Your task to perform on an android device: Add logitech g pro to the cart on walmart, then select checkout. Image 0: 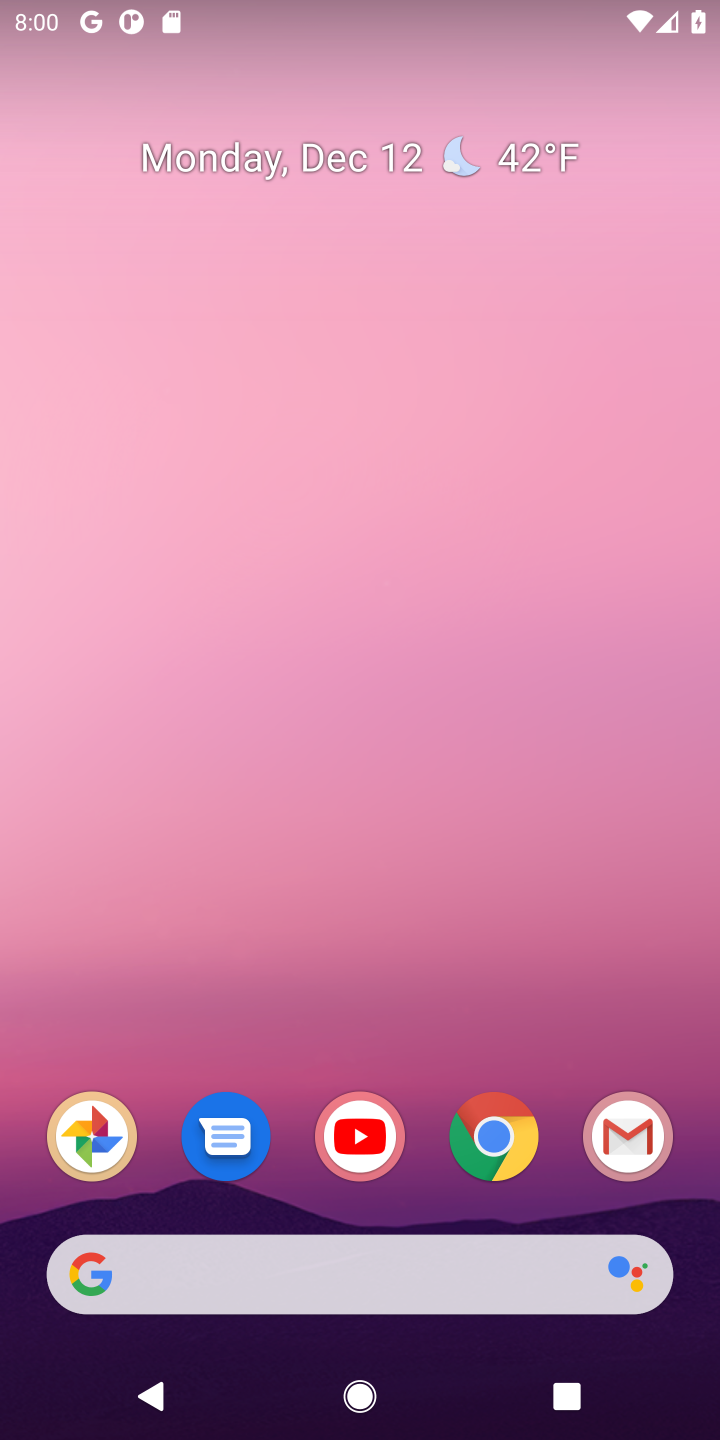
Step 0: click (498, 1151)
Your task to perform on an android device: Add logitech g pro to the cart on walmart, then select checkout. Image 1: 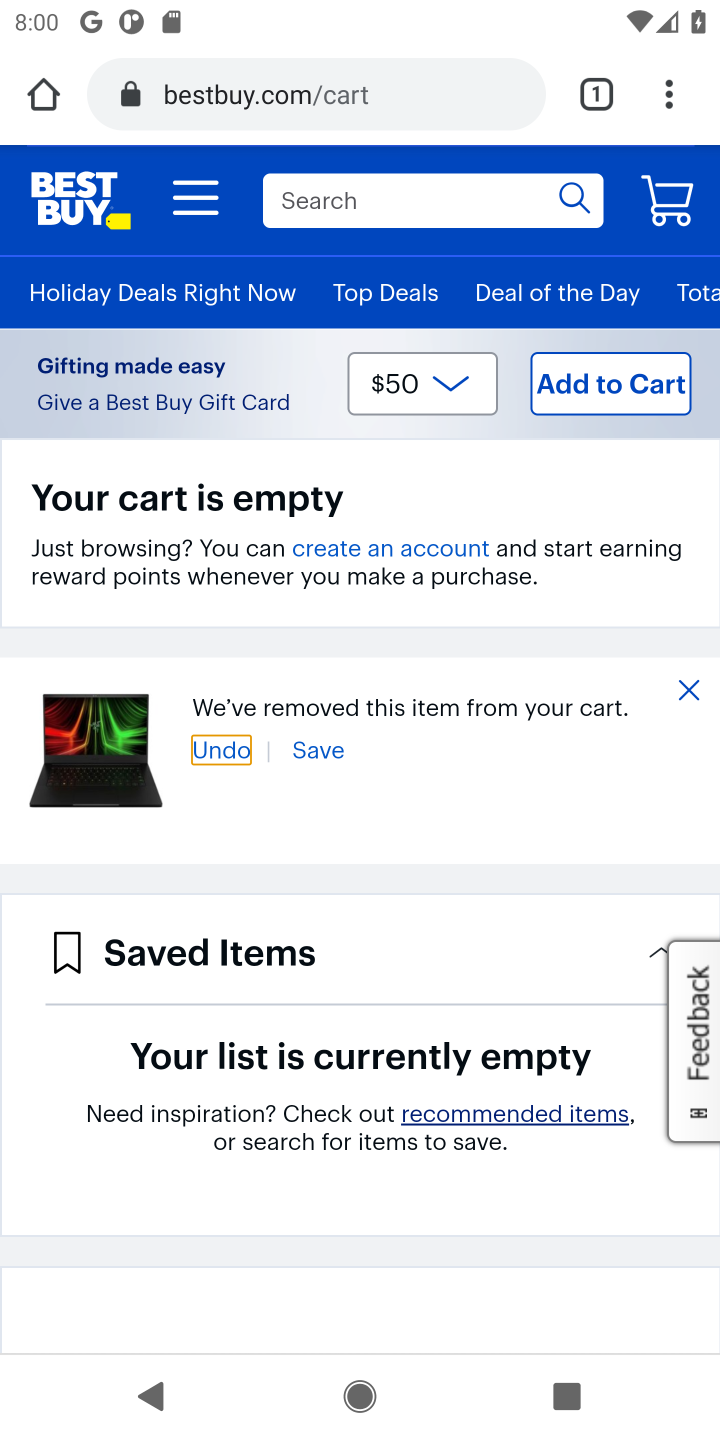
Step 1: click (270, 95)
Your task to perform on an android device: Add logitech g pro to the cart on walmart, then select checkout. Image 2: 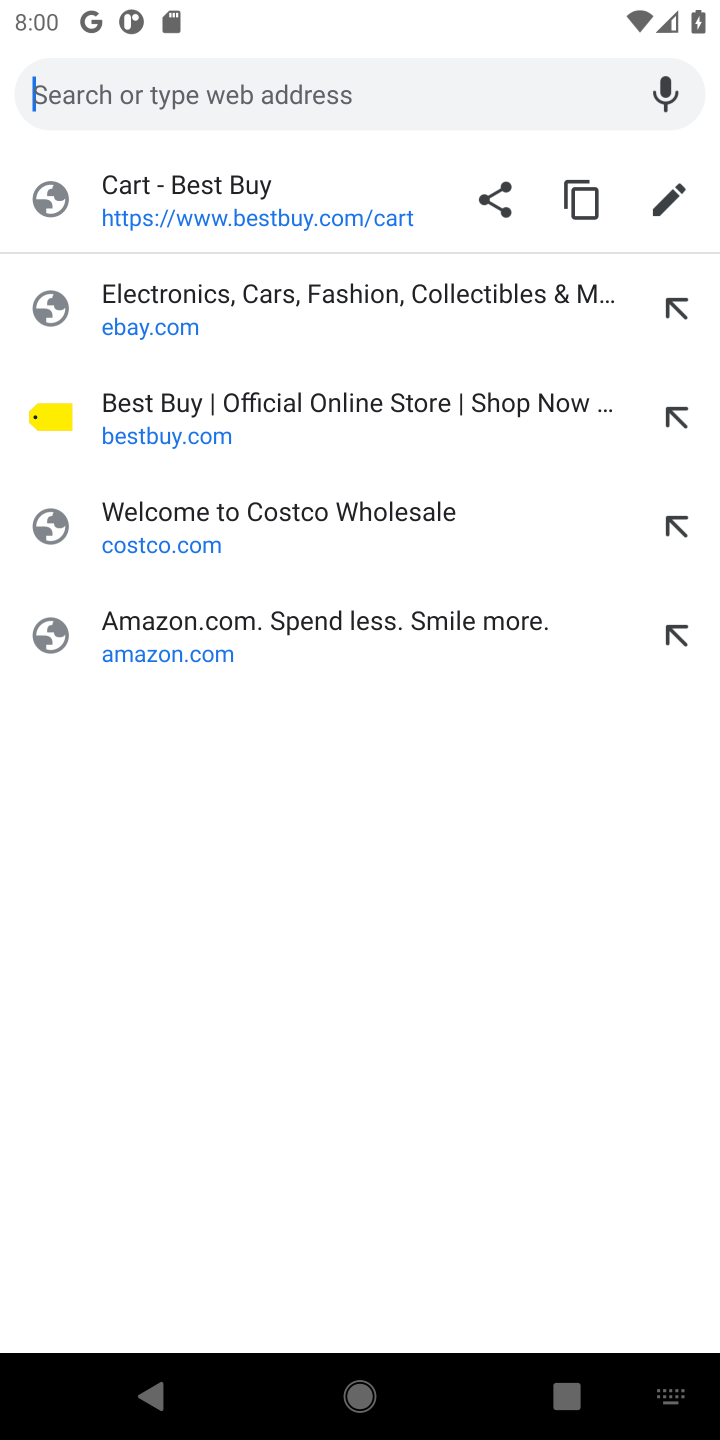
Step 2: type "walmart.com"
Your task to perform on an android device: Add logitech g pro to the cart on walmart, then select checkout. Image 3: 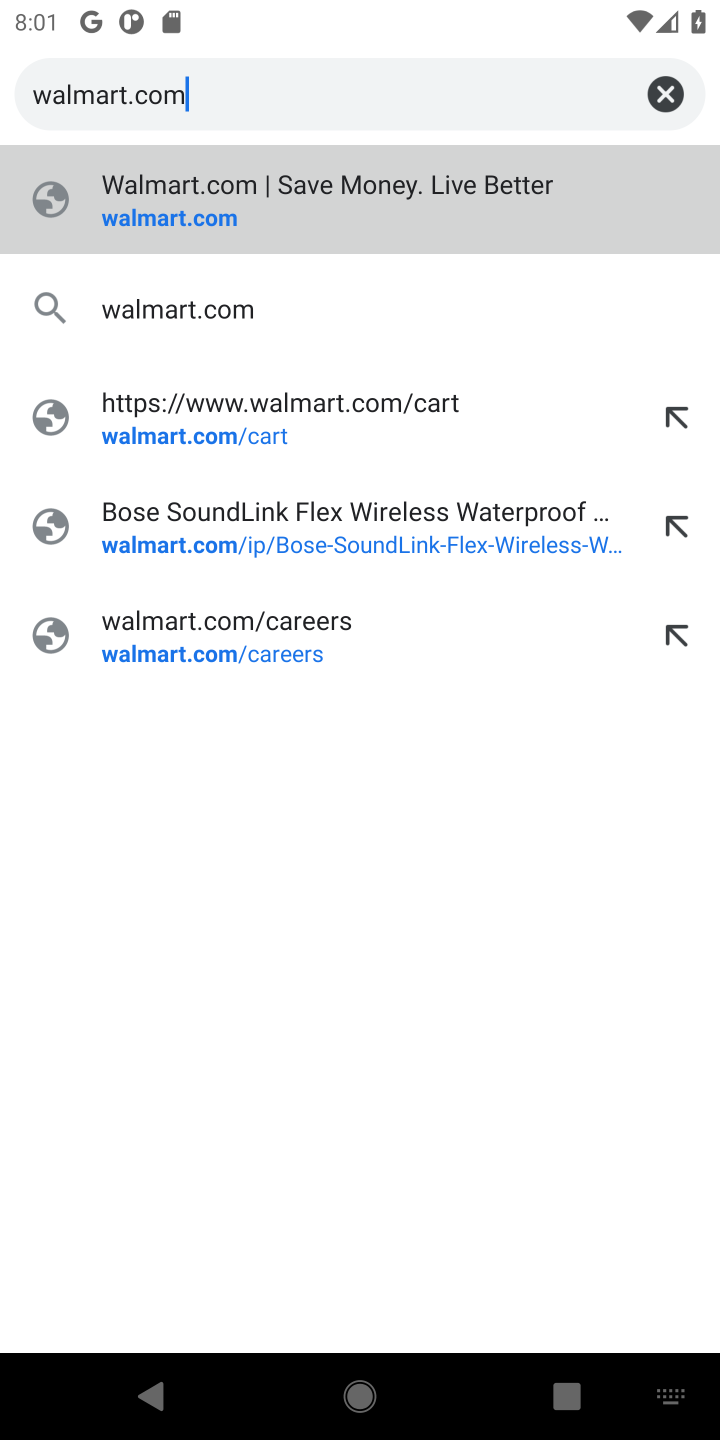
Step 3: click (188, 236)
Your task to perform on an android device: Add logitech g pro to the cart on walmart, then select checkout. Image 4: 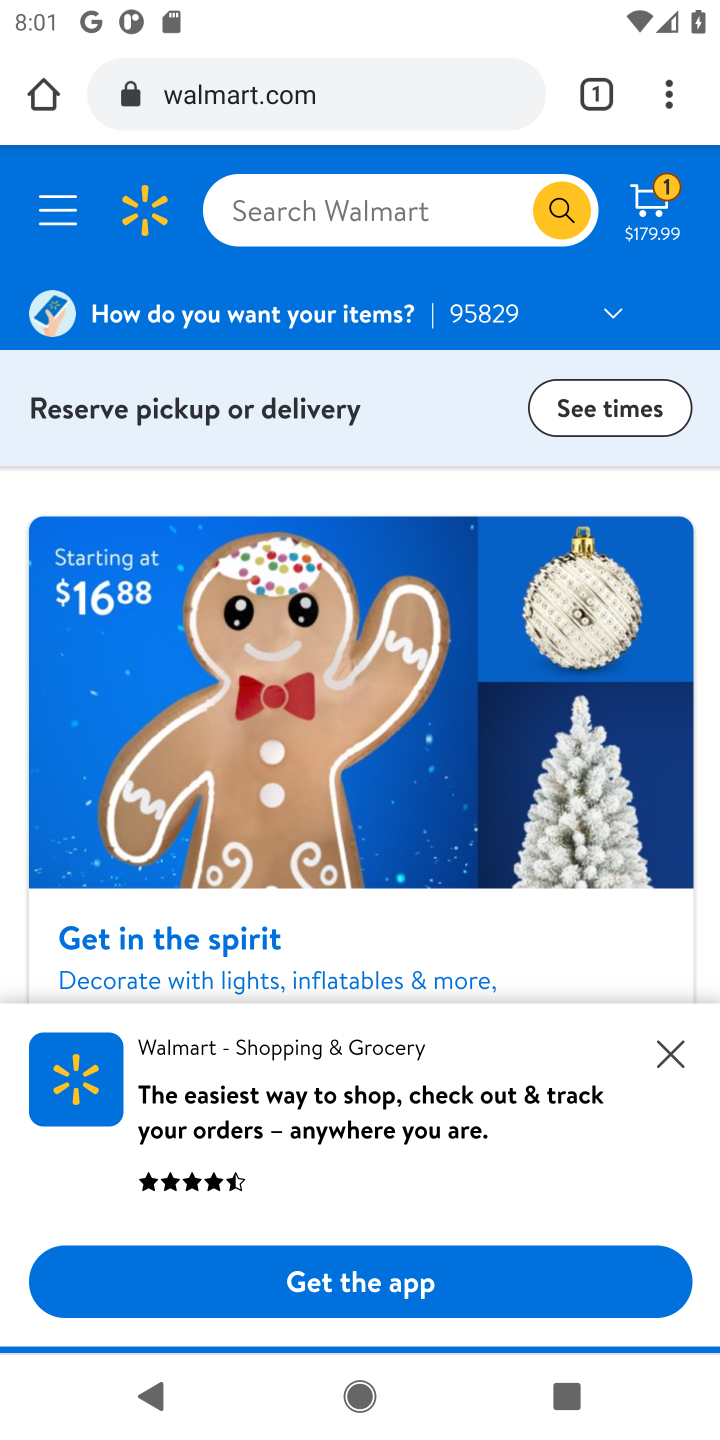
Step 4: click (318, 215)
Your task to perform on an android device: Add logitech g pro to the cart on walmart, then select checkout. Image 5: 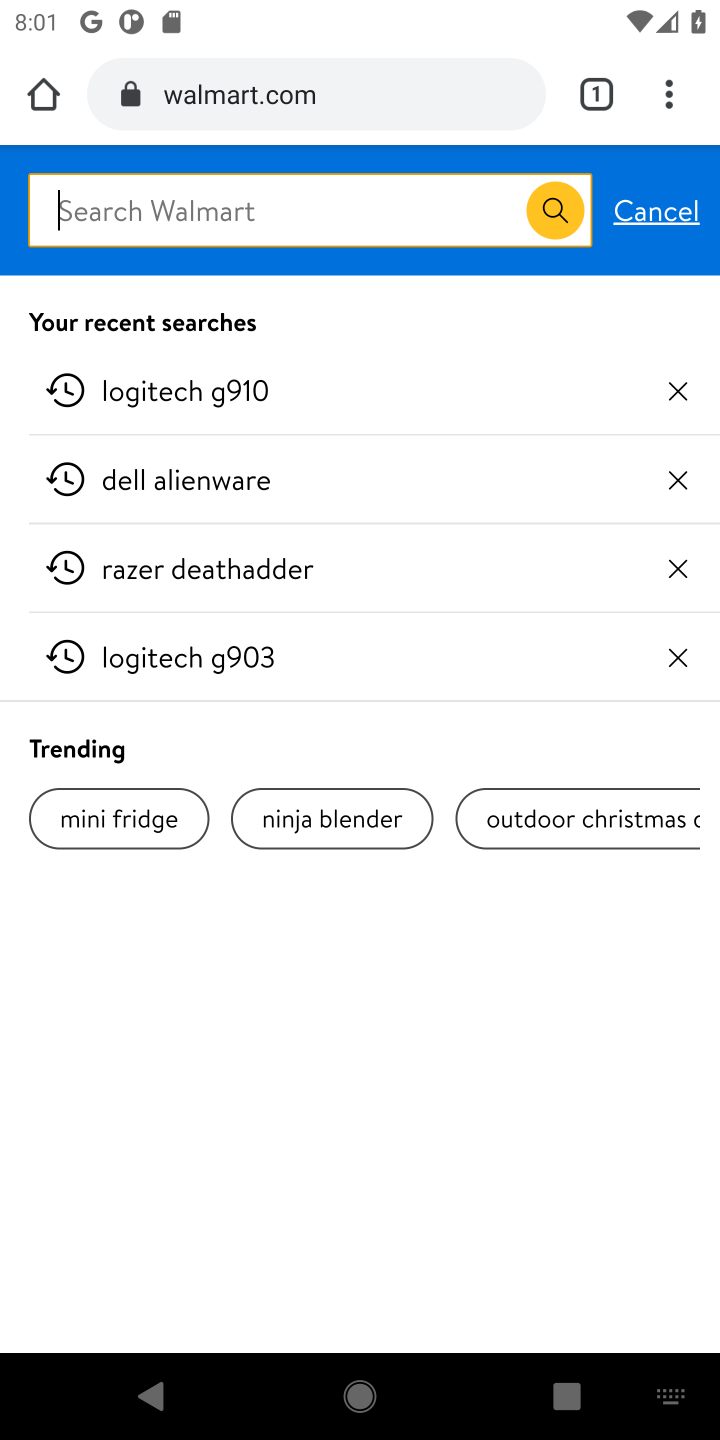
Step 5: type " logitech g pro"
Your task to perform on an android device: Add logitech g pro to the cart on walmart, then select checkout. Image 6: 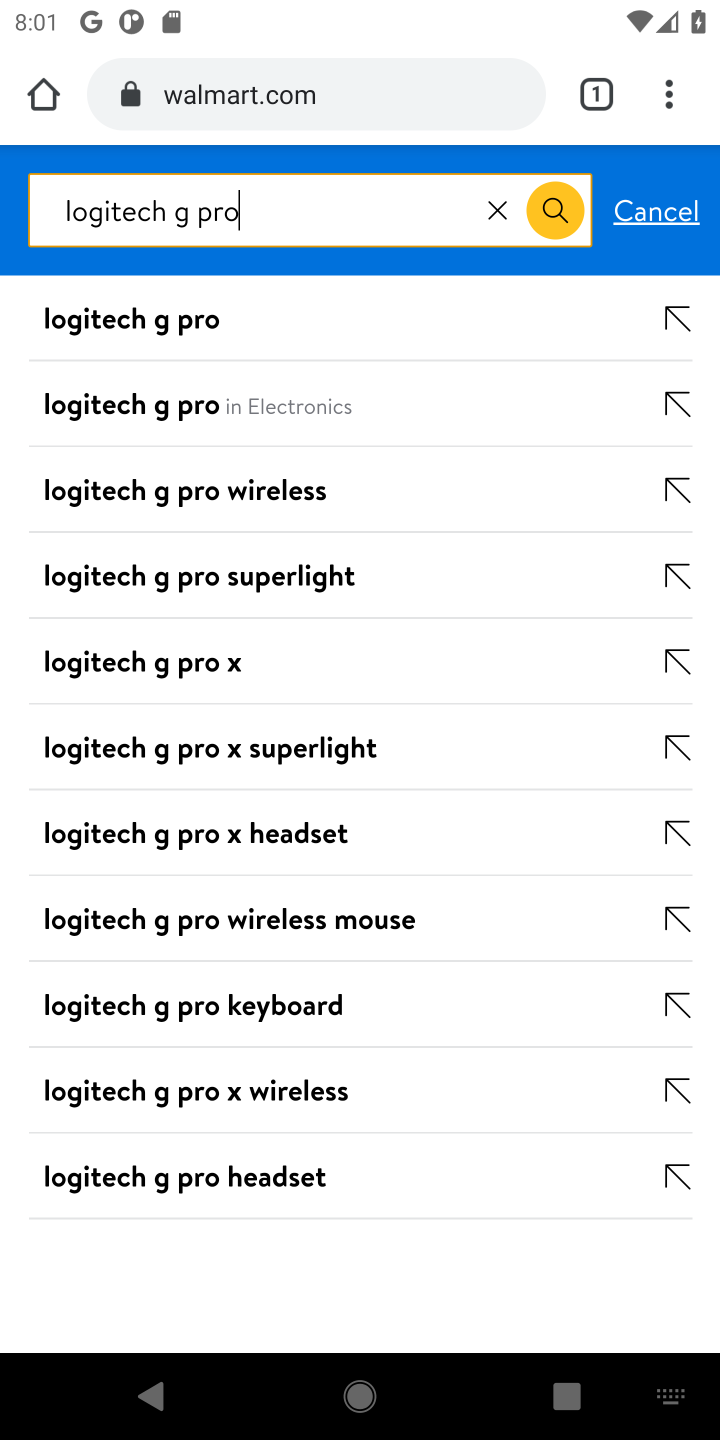
Step 6: click (121, 302)
Your task to perform on an android device: Add logitech g pro to the cart on walmart, then select checkout. Image 7: 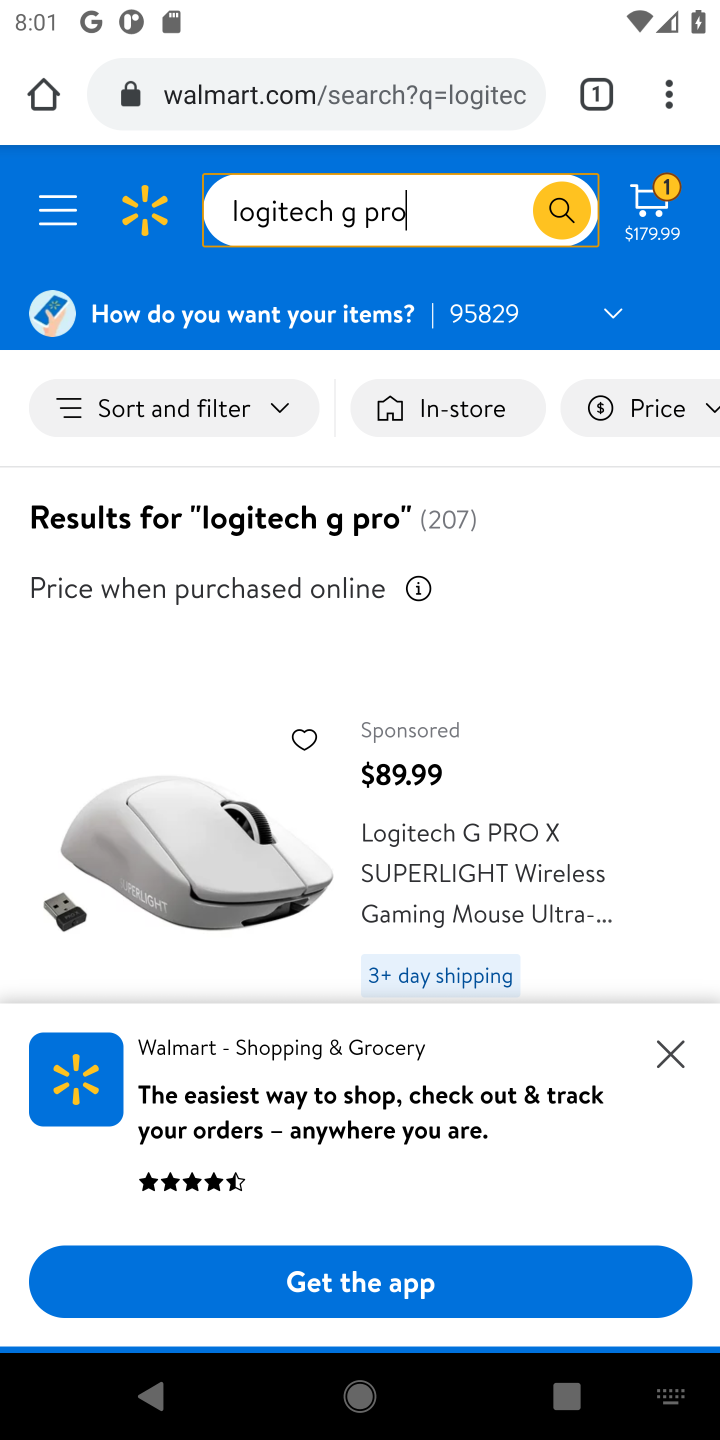
Step 7: drag from (463, 860) to (483, 493)
Your task to perform on an android device: Add logitech g pro to the cart on walmart, then select checkout. Image 8: 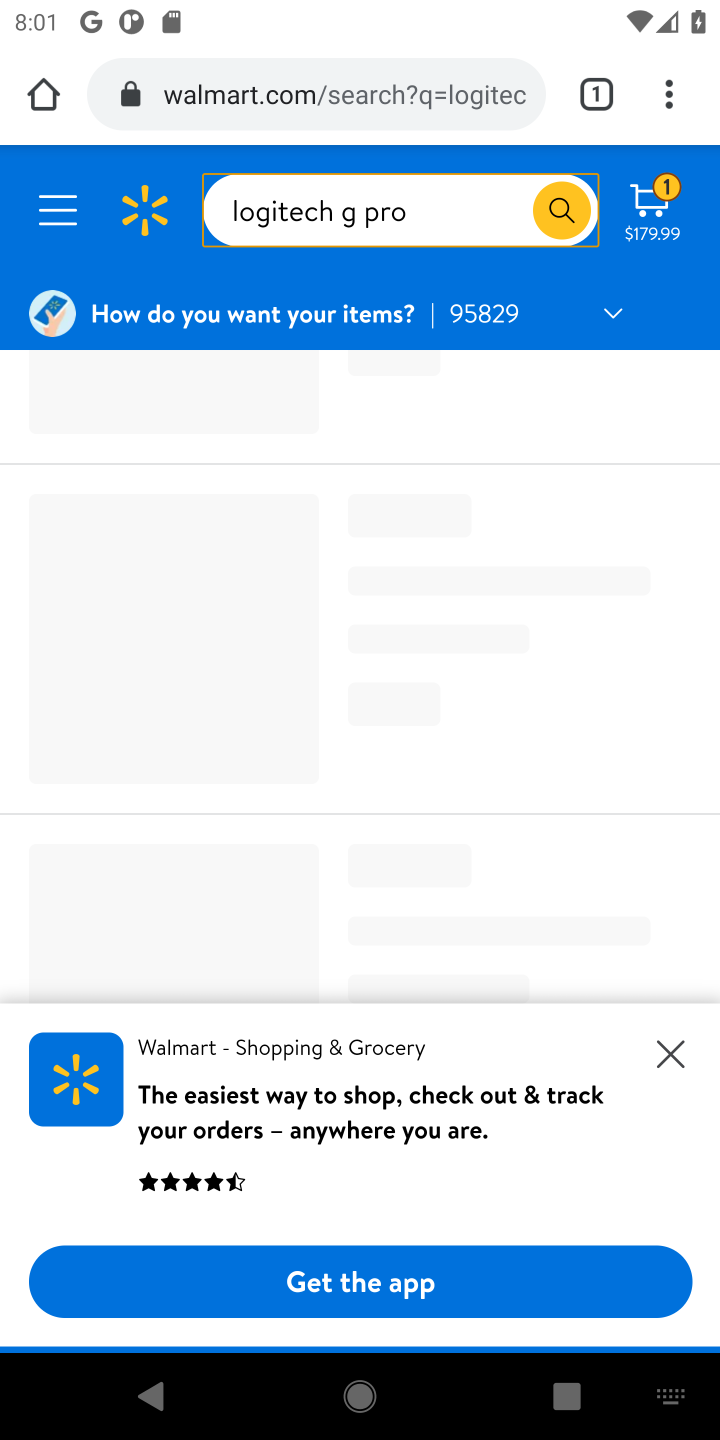
Step 8: click (519, 714)
Your task to perform on an android device: Add logitech g pro to the cart on walmart, then select checkout. Image 9: 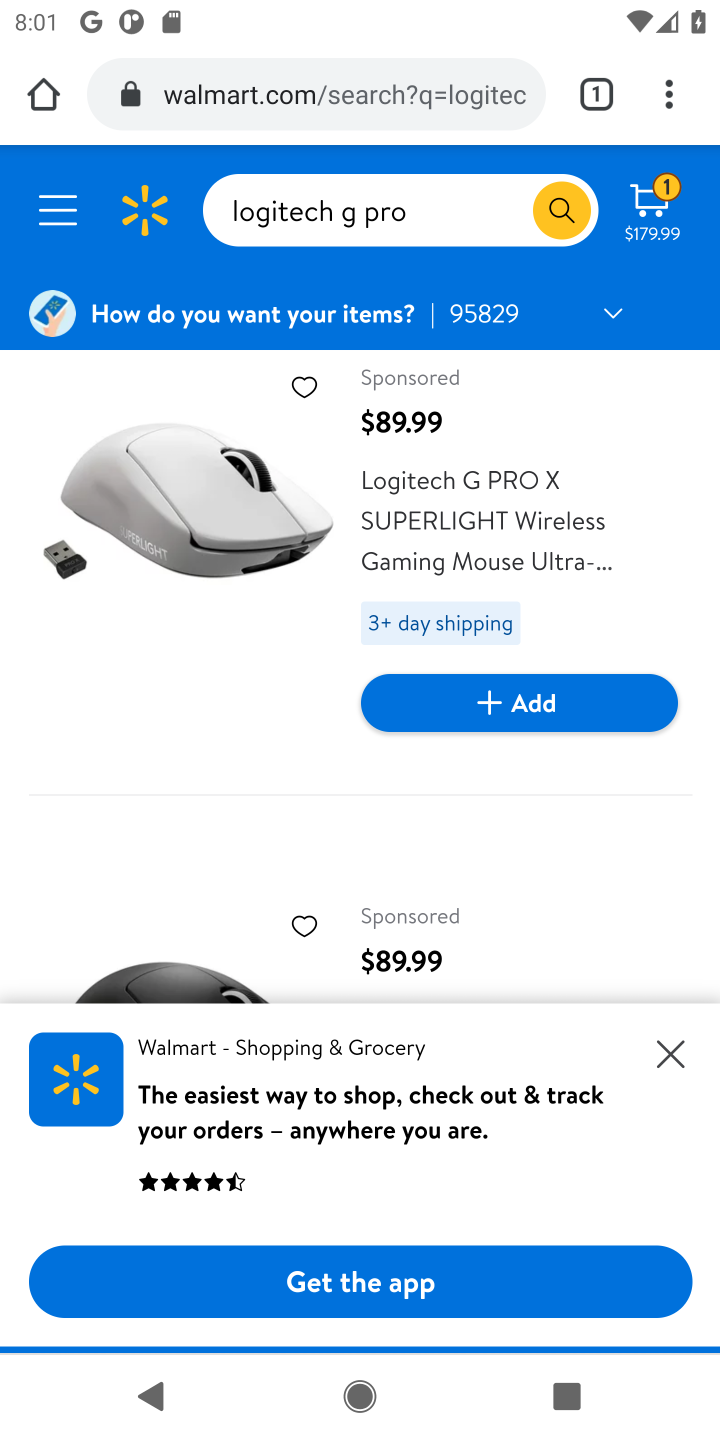
Step 9: click (519, 714)
Your task to perform on an android device: Add logitech g pro to the cart on walmart, then select checkout. Image 10: 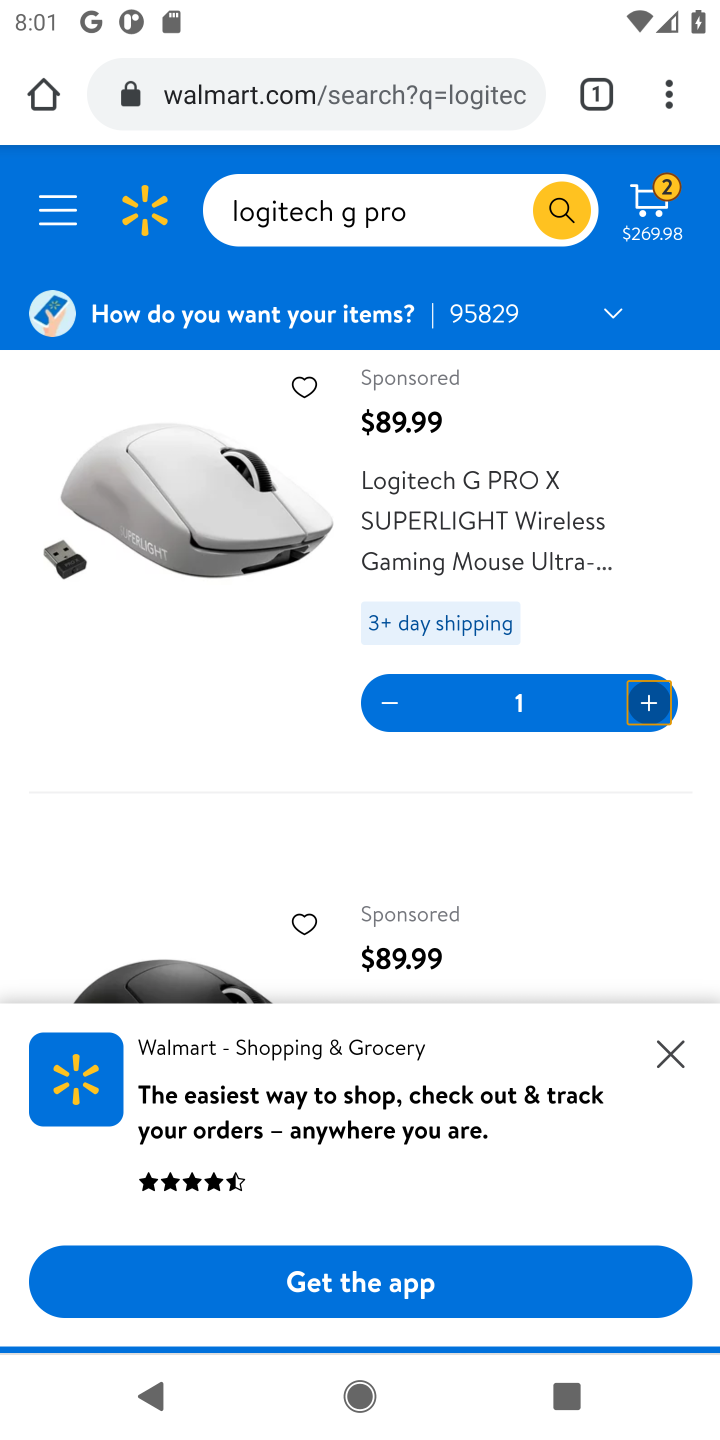
Step 10: click (647, 208)
Your task to perform on an android device: Add logitech g pro to the cart on walmart, then select checkout. Image 11: 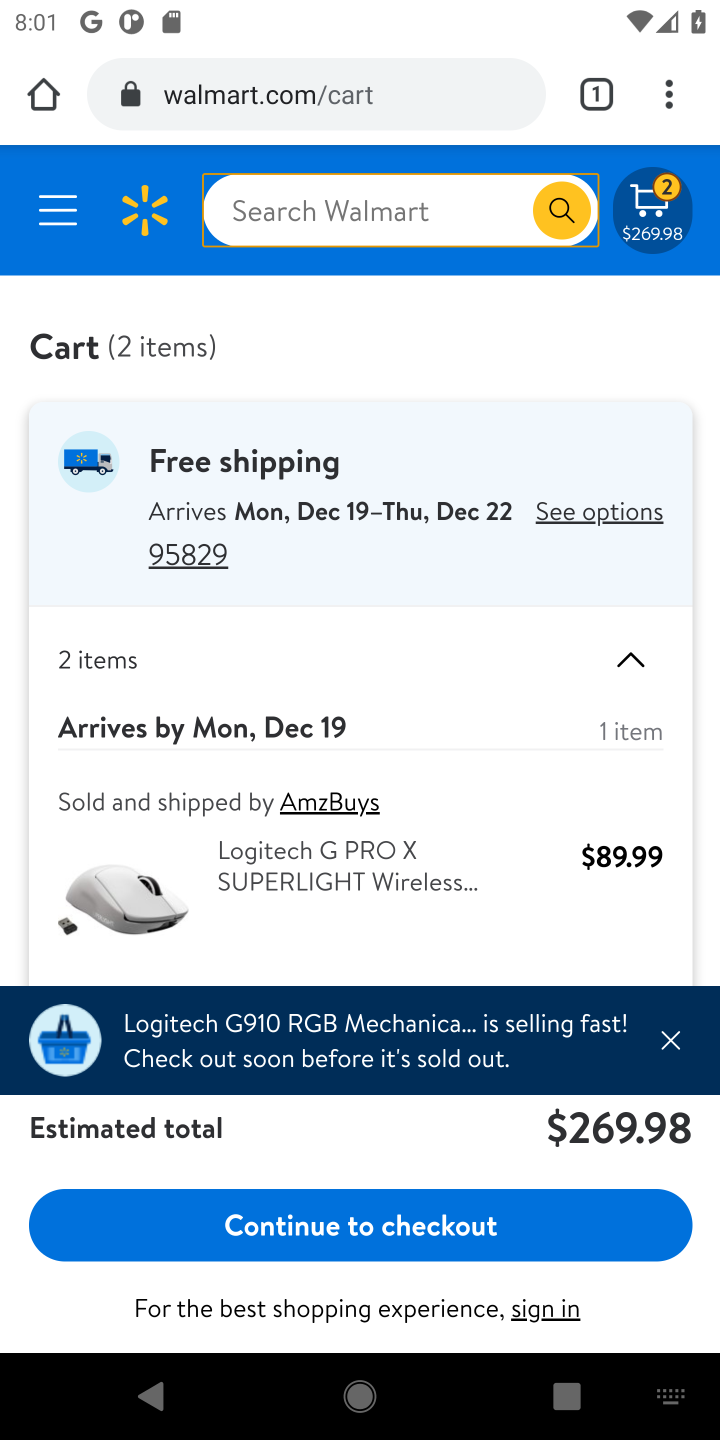
Step 11: click (300, 1231)
Your task to perform on an android device: Add logitech g pro to the cart on walmart, then select checkout. Image 12: 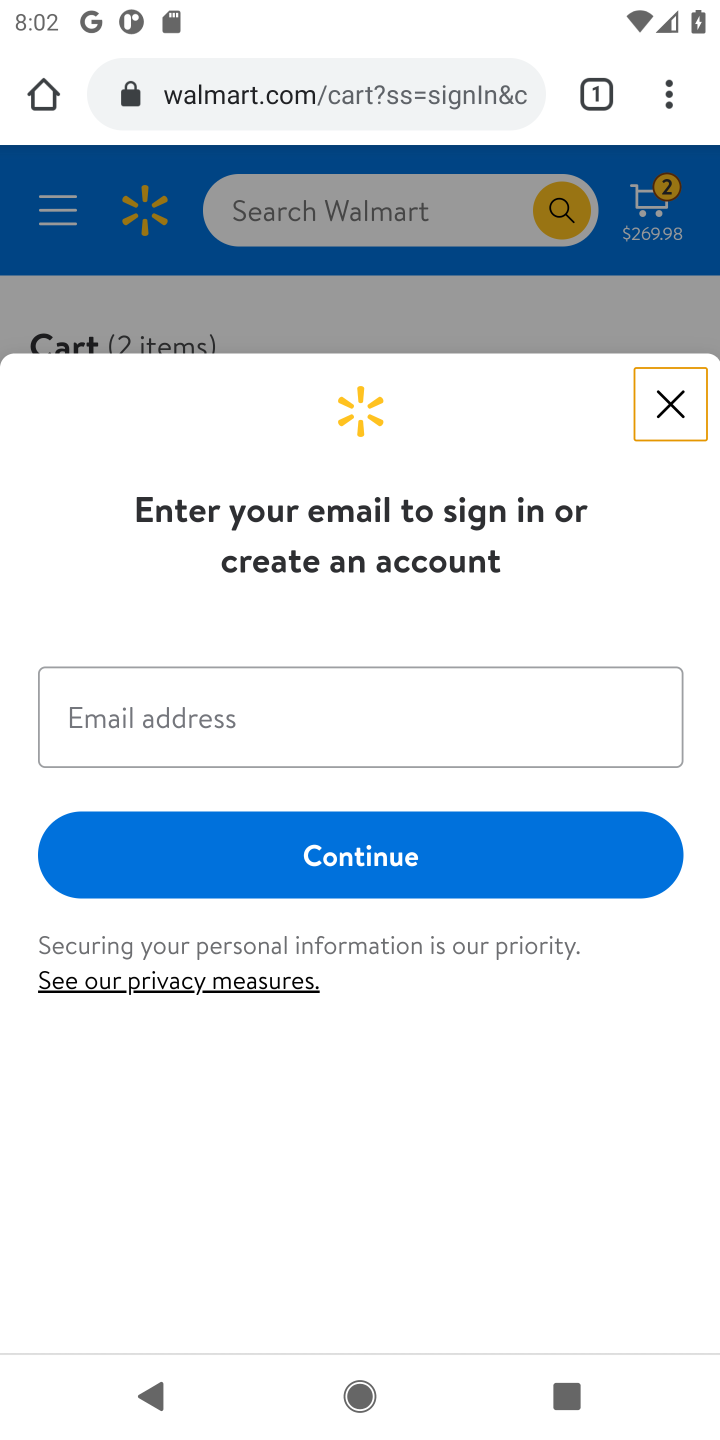
Step 12: task complete